Your task to perform on an android device: see creations saved in the google photos Image 0: 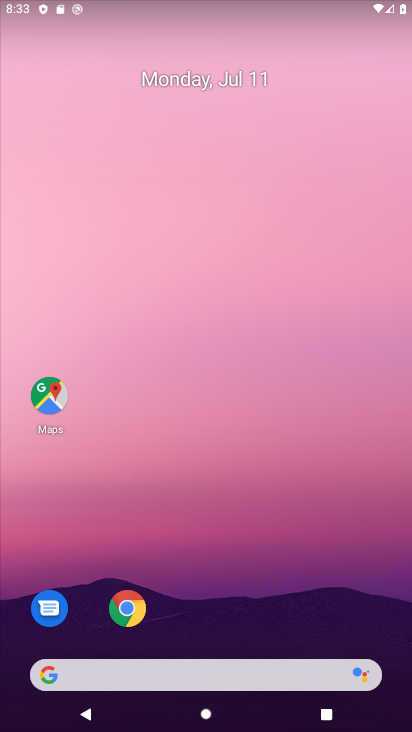
Step 0: drag from (180, 483) to (160, 69)
Your task to perform on an android device: see creations saved in the google photos Image 1: 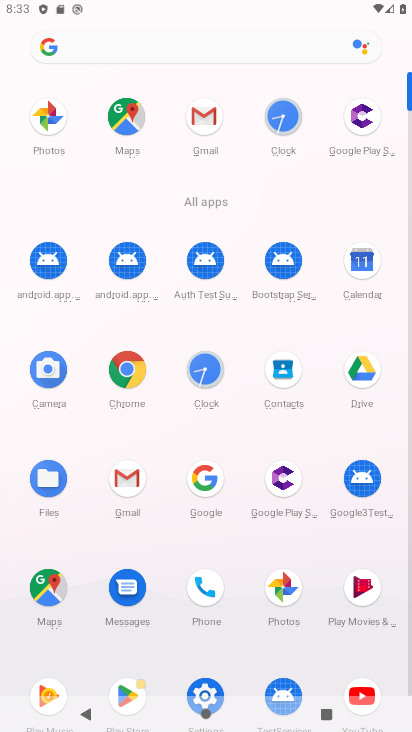
Step 1: click (276, 590)
Your task to perform on an android device: see creations saved in the google photos Image 2: 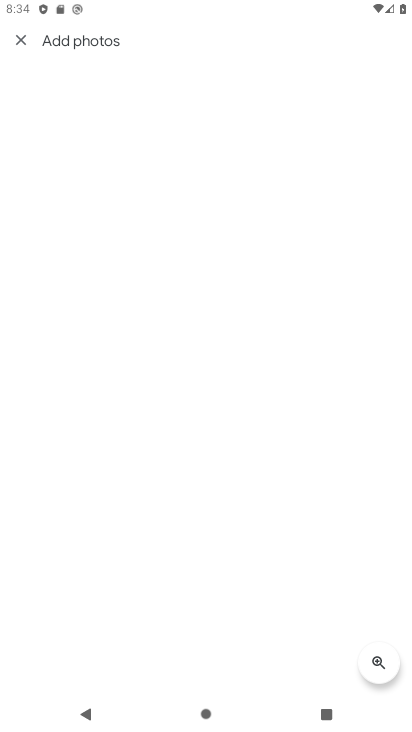
Step 2: press home button
Your task to perform on an android device: see creations saved in the google photos Image 3: 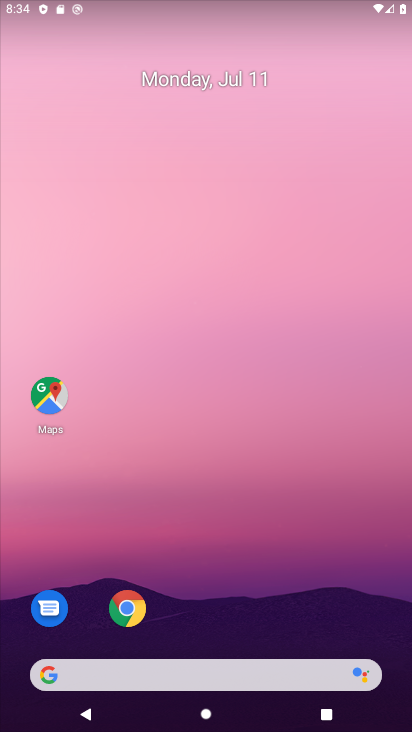
Step 3: click (194, 31)
Your task to perform on an android device: see creations saved in the google photos Image 4: 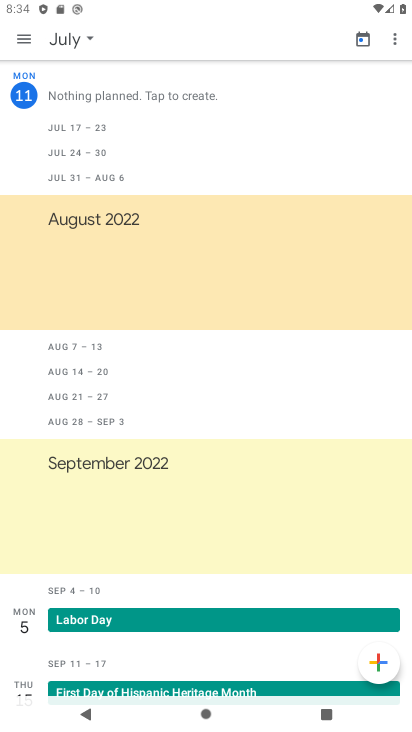
Step 4: press home button
Your task to perform on an android device: see creations saved in the google photos Image 5: 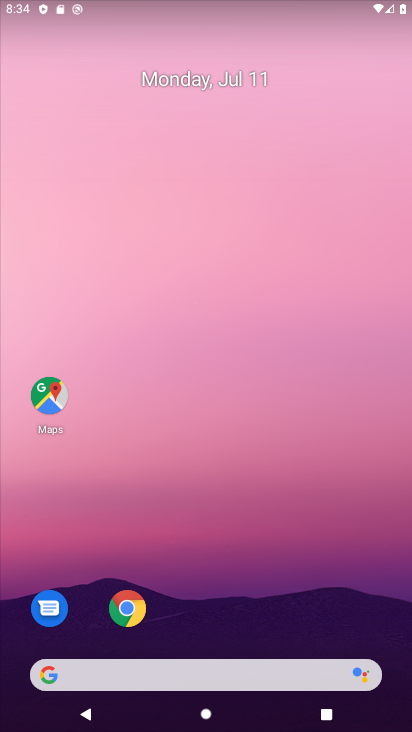
Step 5: drag from (213, 630) to (181, 265)
Your task to perform on an android device: see creations saved in the google photos Image 6: 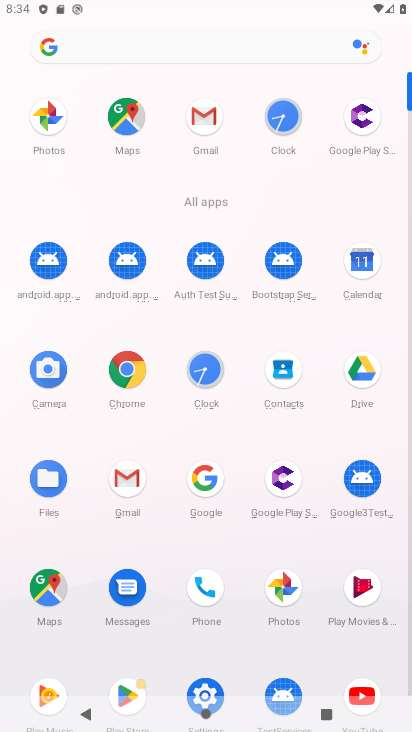
Step 6: click (282, 595)
Your task to perform on an android device: see creations saved in the google photos Image 7: 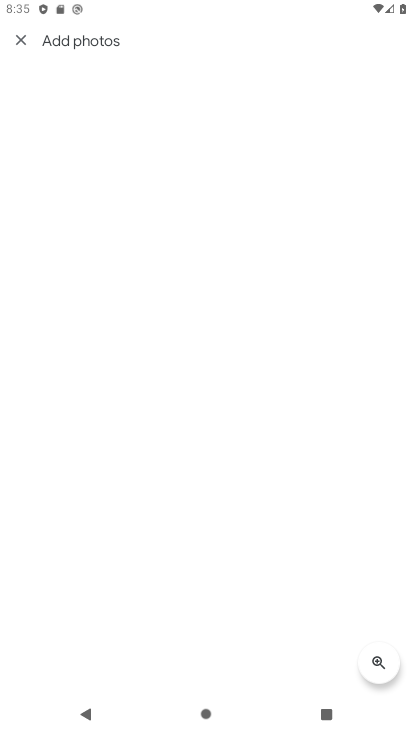
Step 7: task complete